Your task to perform on an android device: clear all cookies in the chrome app Image 0: 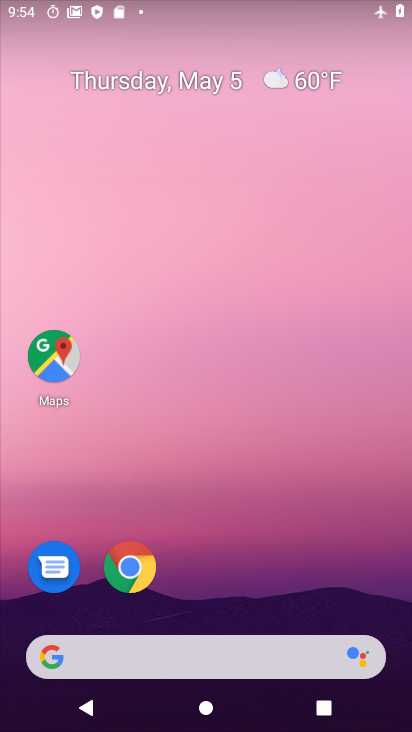
Step 0: drag from (289, 449) to (7, 260)
Your task to perform on an android device: clear all cookies in the chrome app Image 1: 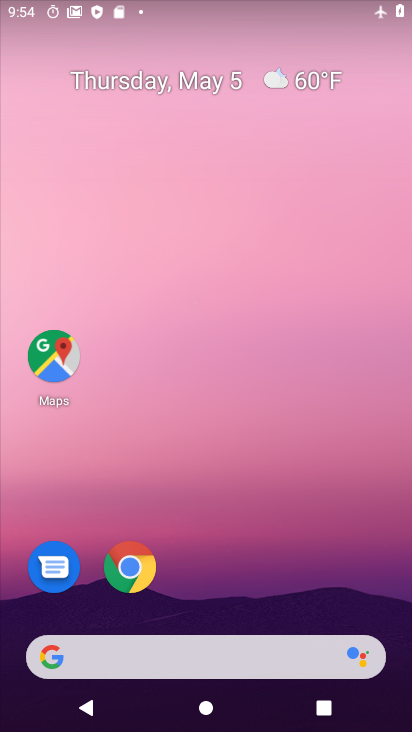
Step 1: drag from (274, 531) to (157, 11)
Your task to perform on an android device: clear all cookies in the chrome app Image 2: 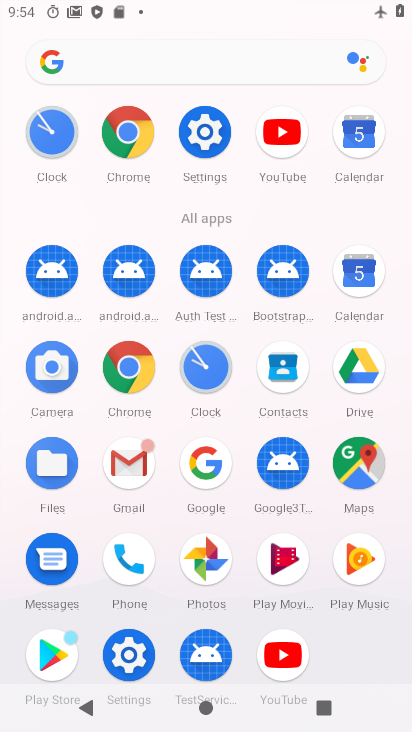
Step 2: click (120, 143)
Your task to perform on an android device: clear all cookies in the chrome app Image 3: 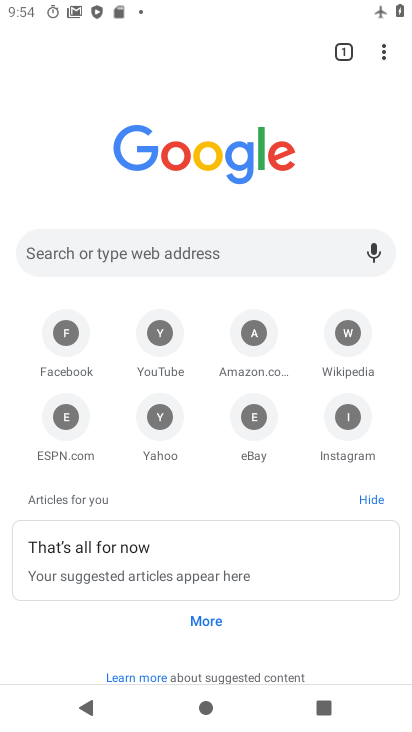
Step 3: task complete